Your task to perform on an android device: open app "Gmail" (install if not already installed) and enter user name: "undecidable@inbox.com" and password: "discouraging" Image 0: 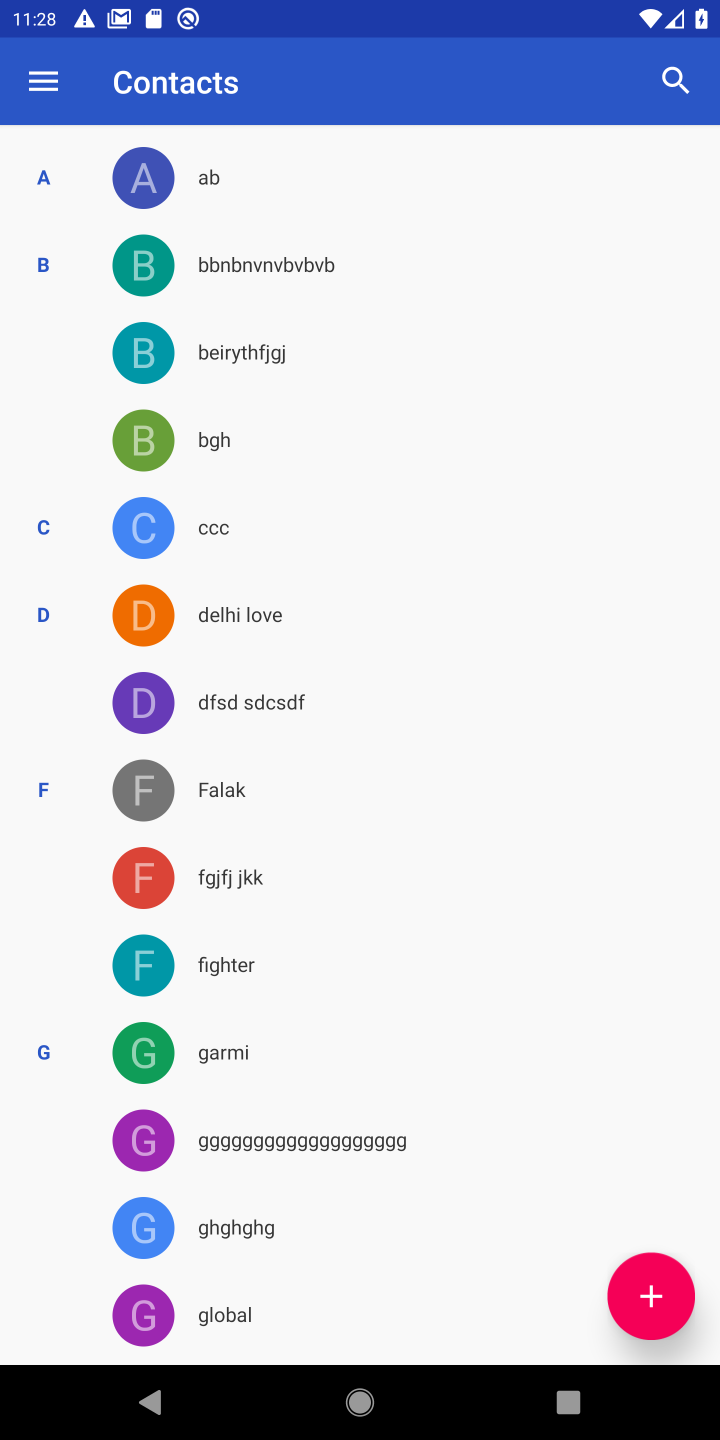
Step 0: task complete